Your task to perform on an android device: remove spam from my inbox in the gmail app Image 0: 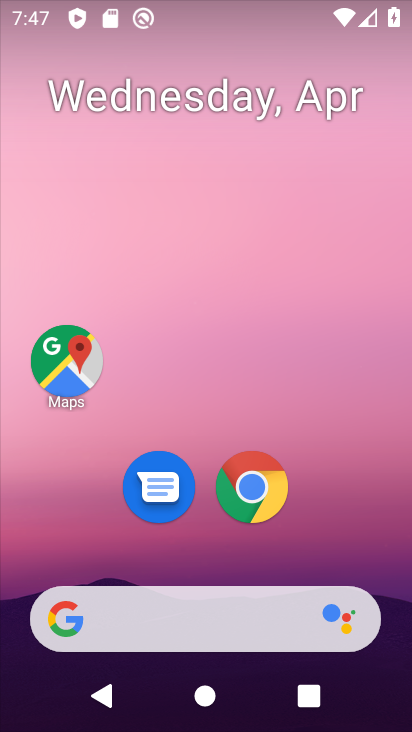
Step 0: drag from (309, 536) to (281, 146)
Your task to perform on an android device: remove spam from my inbox in the gmail app Image 1: 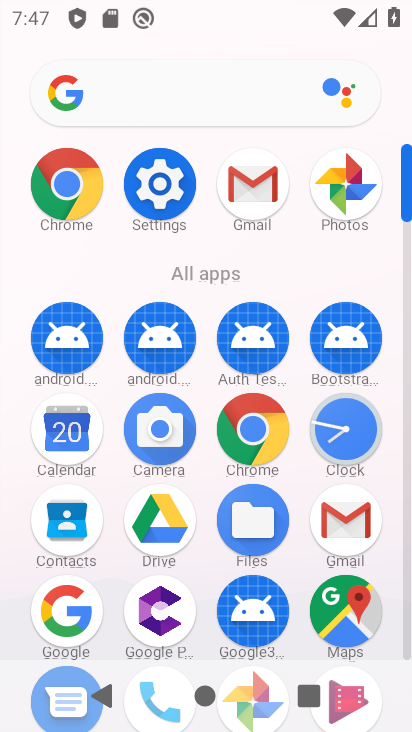
Step 1: click (256, 188)
Your task to perform on an android device: remove spam from my inbox in the gmail app Image 2: 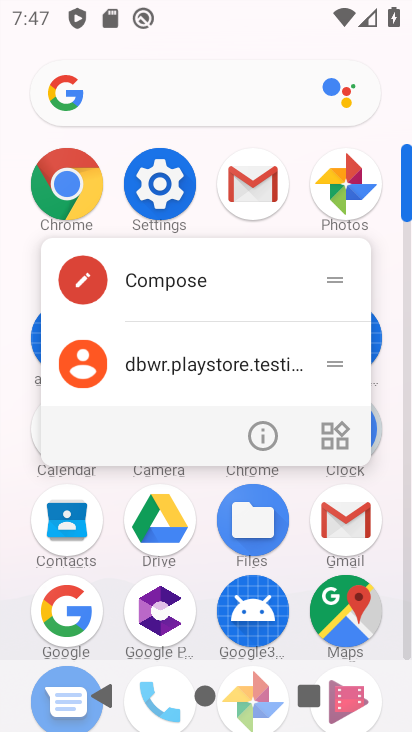
Step 2: click (257, 175)
Your task to perform on an android device: remove spam from my inbox in the gmail app Image 3: 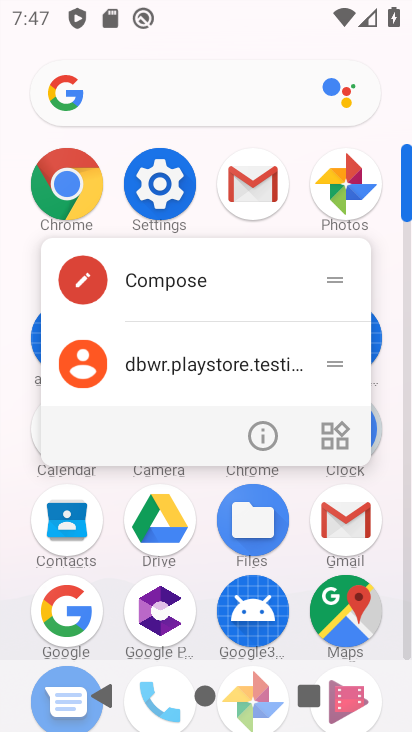
Step 3: click (250, 186)
Your task to perform on an android device: remove spam from my inbox in the gmail app Image 4: 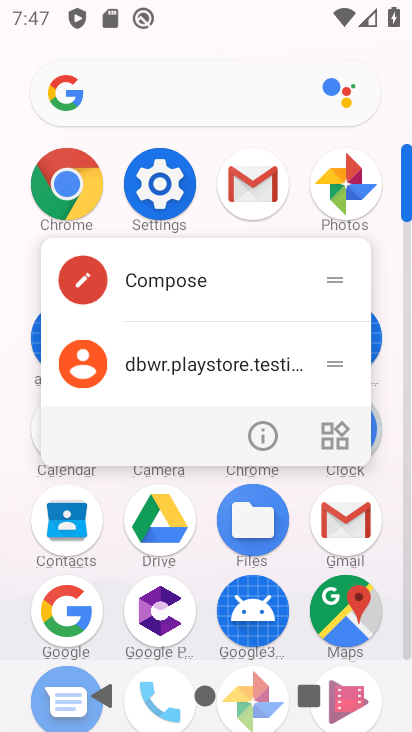
Step 4: click (362, 525)
Your task to perform on an android device: remove spam from my inbox in the gmail app Image 5: 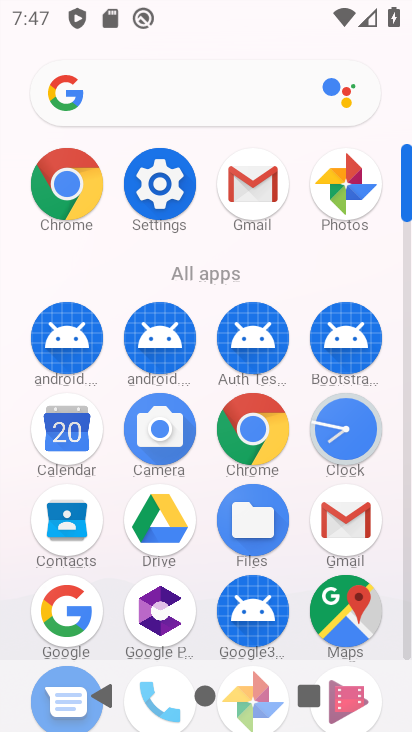
Step 5: click (356, 523)
Your task to perform on an android device: remove spam from my inbox in the gmail app Image 6: 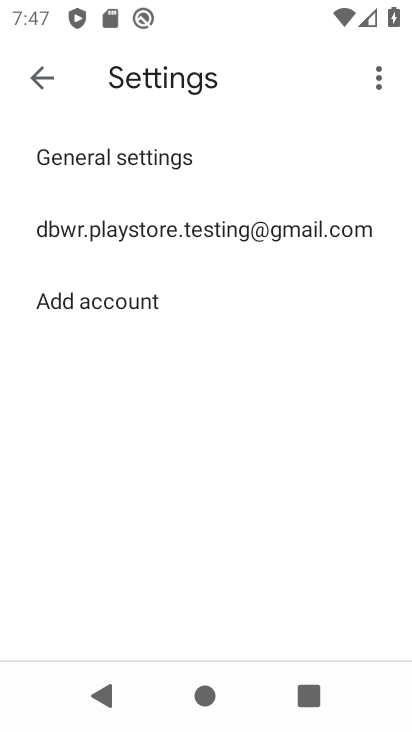
Step 6: click (31, 92)
Your task to perform on an android device: remove spam from my inbox in the gmail app Image 7: 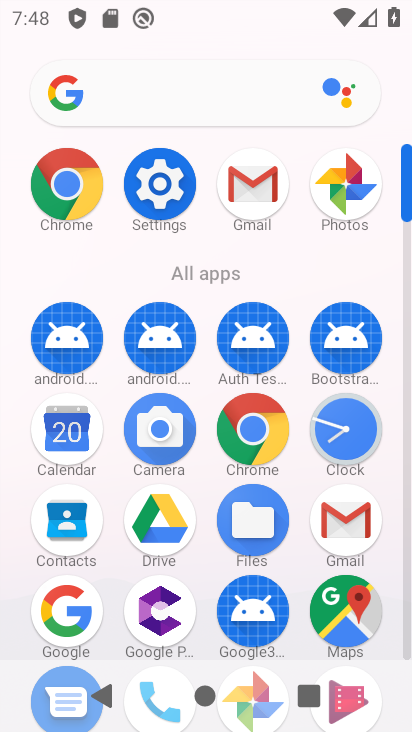
Step 7: click (349, 535)
Your task to perform on an android device: remove spam from my inbox in the gmail app Image 8: 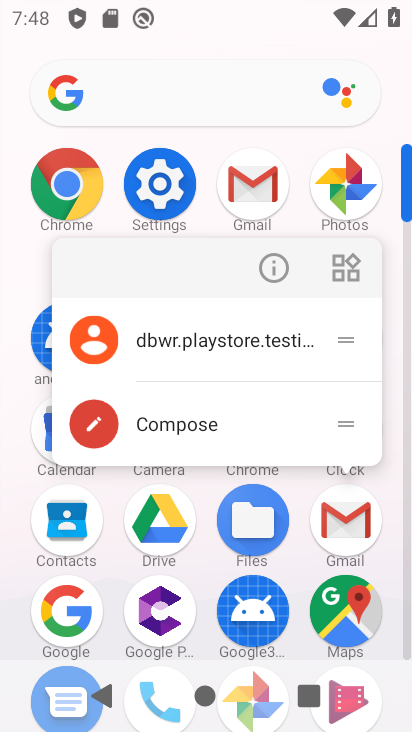
Step 8: click (349, 526)
Your task to perform on an android device: remove spam from my inbox in the gmail app Image 9: 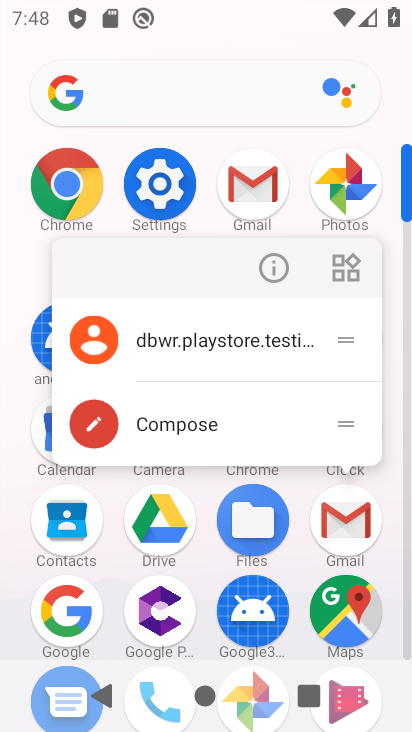
Step 9: click (364, 503)
Your task to perform on an android device: remove spam from my inbox in the gmail app Image 10: 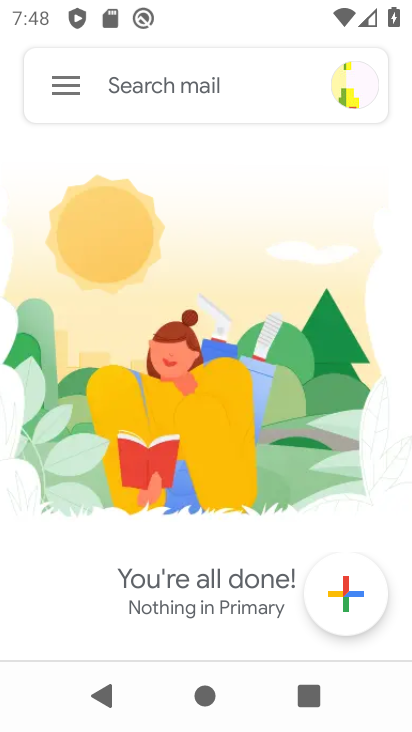
Step 10: click (55, 77)
Your task to perform on an android device: remove spam from my inbox in the gmail app Image 11: 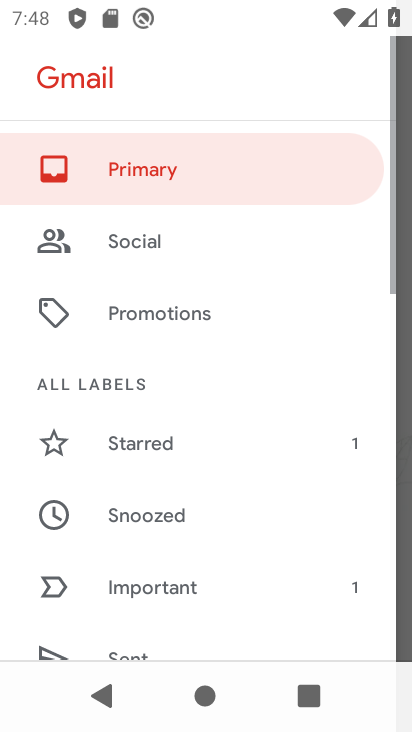
Step 11: drag from (219, 557) to (272, 168)
Your task to perform on an android device: remove spam from my inbox in the gmail app Image 12: 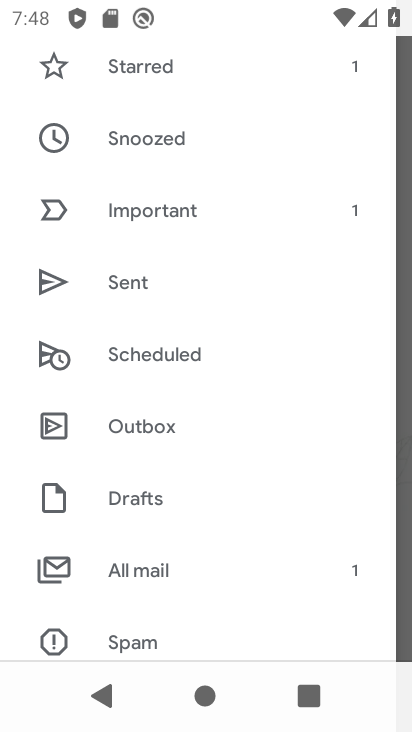
Step 12: drag from (183, 464) to (278, 250)
Your task to perform on an android device: remove spam from my inbox in the gmail app Image 13: 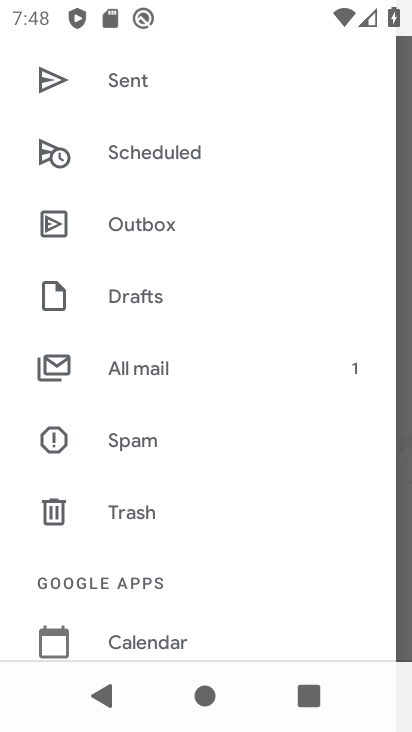
Step 13: click (131, 434)
Your task to perform on an android device: remove spam from my inbox in the gmail app Image 14: 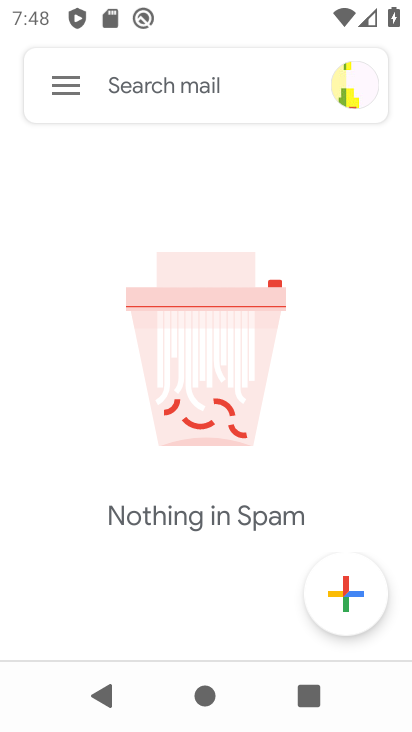
Step 14: task complete